Your task to perform on an android device: Go to Yahoo.com Image 0: 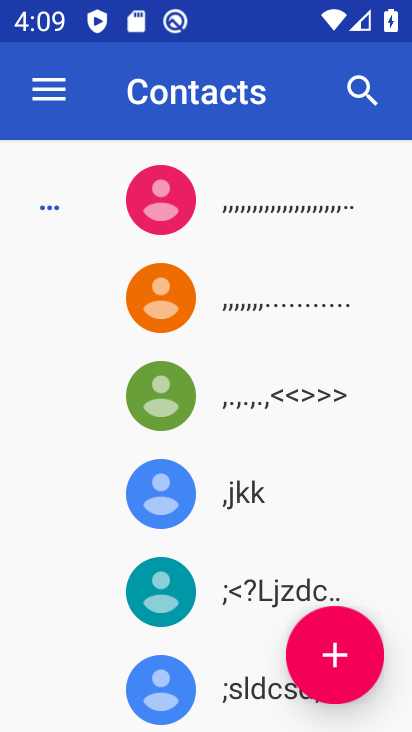
Step 0: press back button
Your task to perform on an android device: Go to Yahoo.com Image 1: 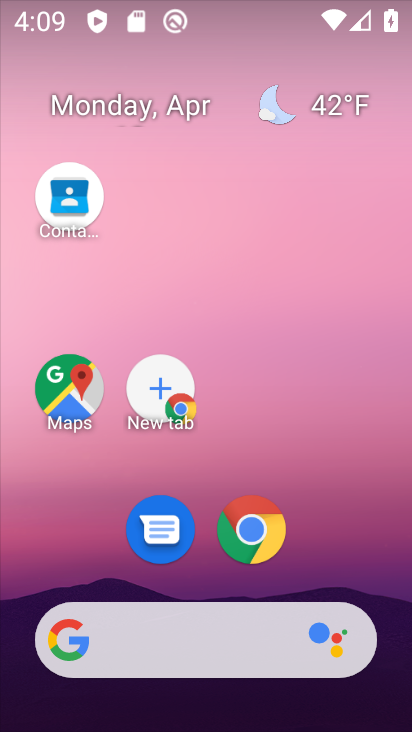
Step 1: click (254, 524)
Your task to perform on an android device: Go to Yahoo.com Image 2: 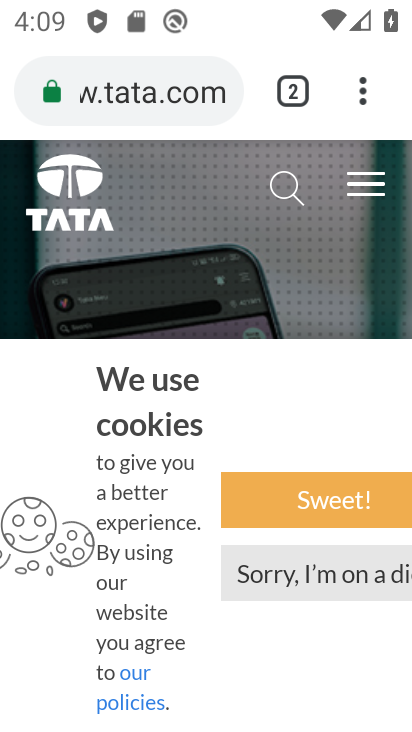
Step 2: click (314, 70)
Your task to perform on an android device: Go to Yahoo.com Image 3: 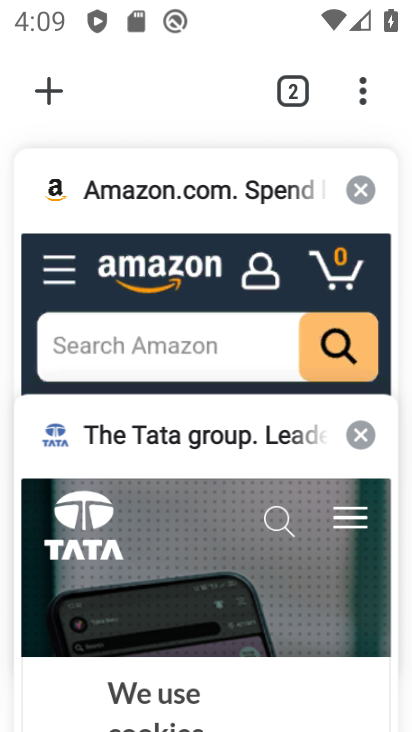
Step 3: click (49, 88)
Your task to perform on an android device: Go to Yahoo.com Image 4: 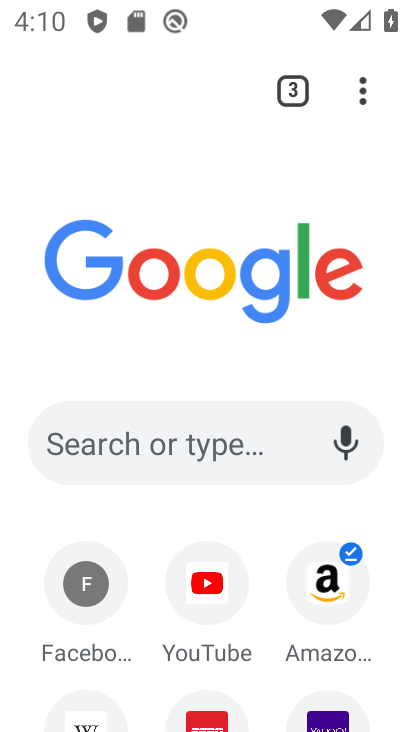
Step 4: click (325, 719)
Your task to perform on an android device: Go to Yahoo.com Image 5: 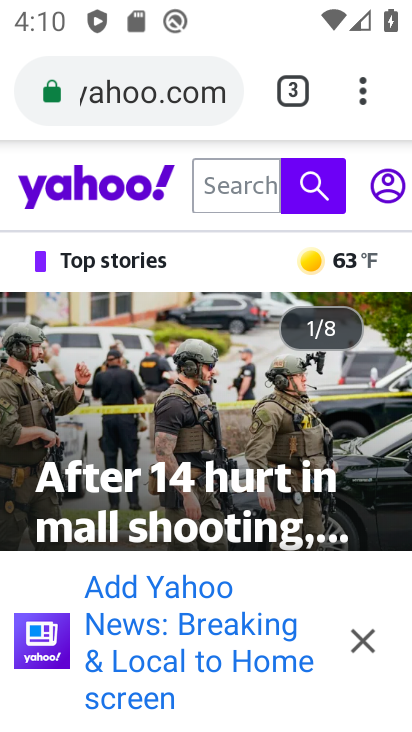
Step 5: click (358, 646)
Your task to perform on an android device: Go to Yahoo.com Image 6: 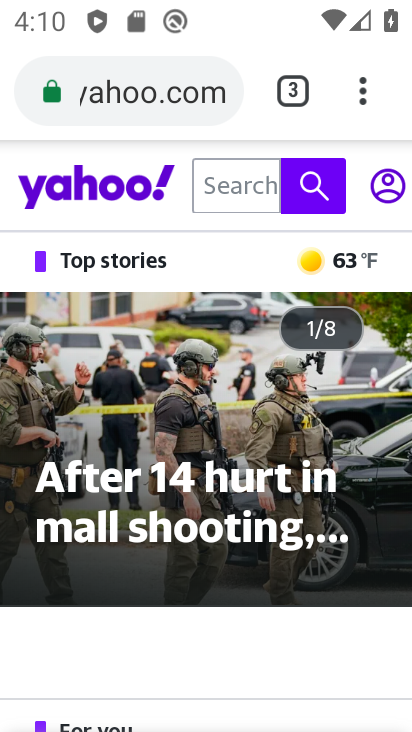
Step 6: task complete